Your task to perform on an android device: turn pop-ups on in chrome Image 0: 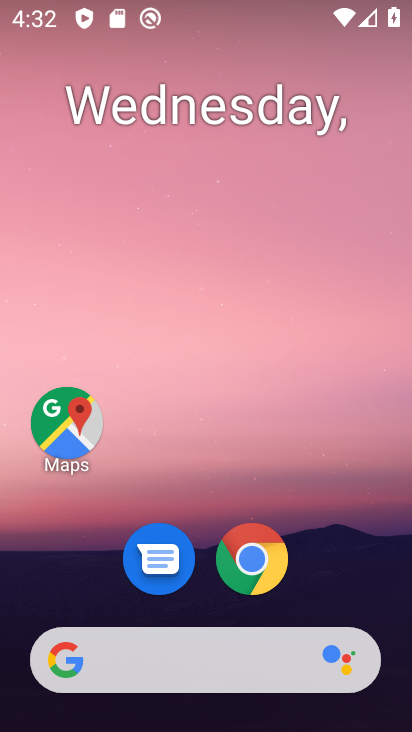
Step 0: click (265, 565)
Your task to perform on an android device: turn pop-ups on in chrome Image 1: 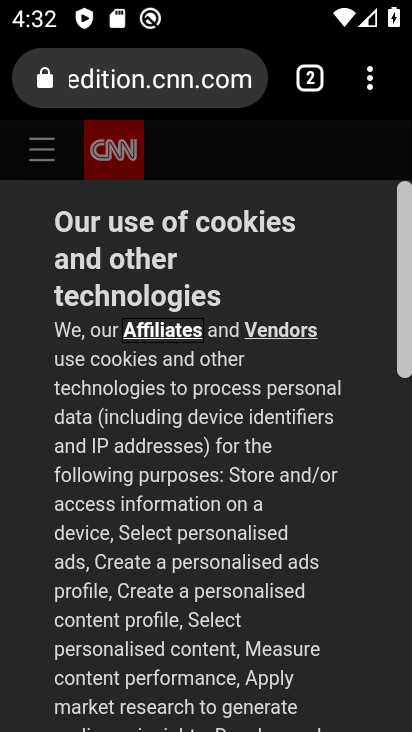
Step 1: click (378, 70)
Your task to perform on an android device: turn pop-ups on in chrome Image 2: 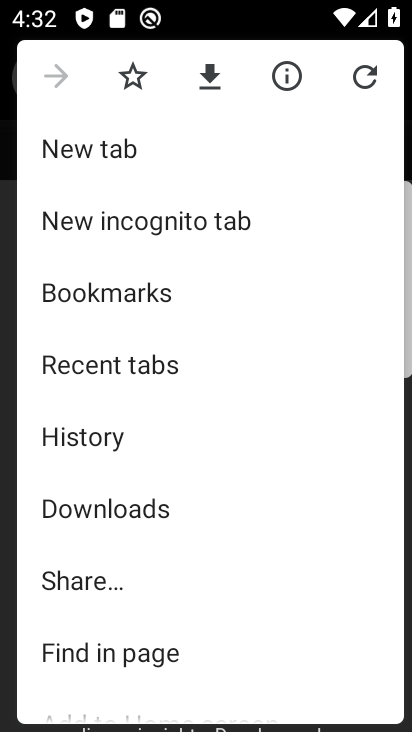
Step 2: drag from (261, 601) to (157, 162)
Your task to perform on an android device: turn pop-ups on in chrome Image 3: 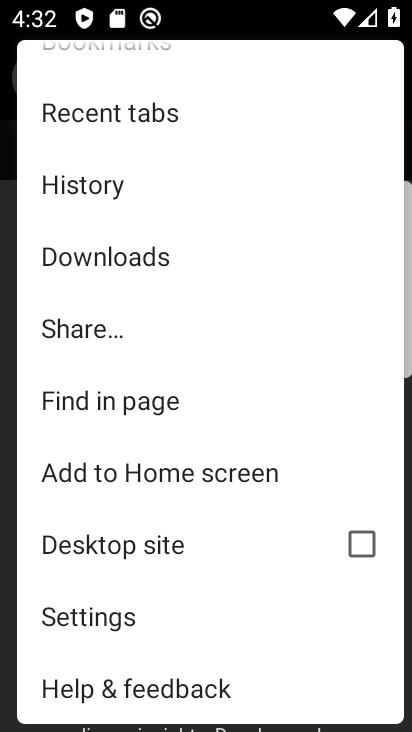
Step 3: click (198, 627)
Your task to perform on an android device: turn pop-ups on in chrome Image 4: 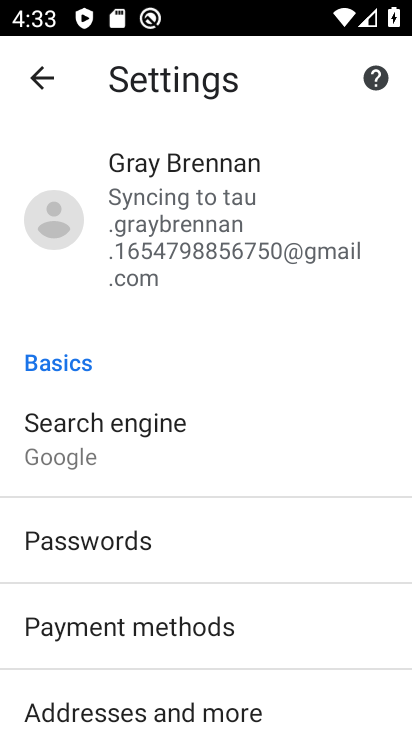
Step 4: drag from (291, 662) to (246, 310)
Your task to perform on an android device: turn pop-ups on in chrome Image 5: 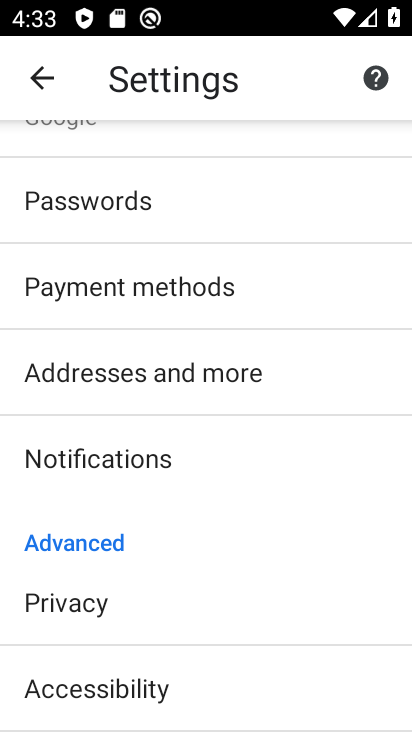
Step 5: drag from (278, 691) to (226, 360)
Your task to perform on an android device: turn pop-ups on in chrome Image 6: 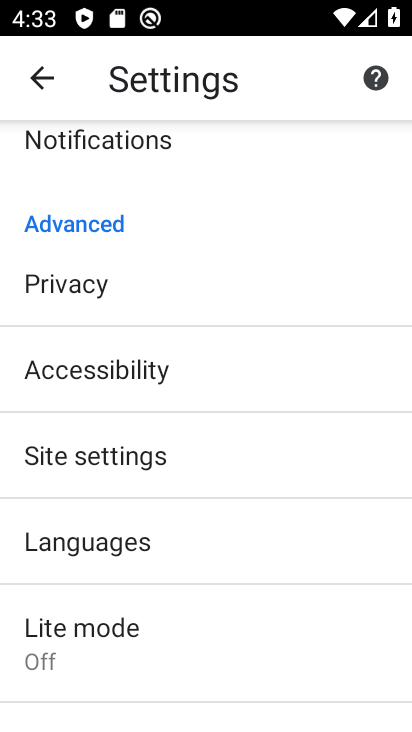
Step 6: click (243, 468)
Your task to perform on an android device: turn pop-ups on in chrome Image 7: 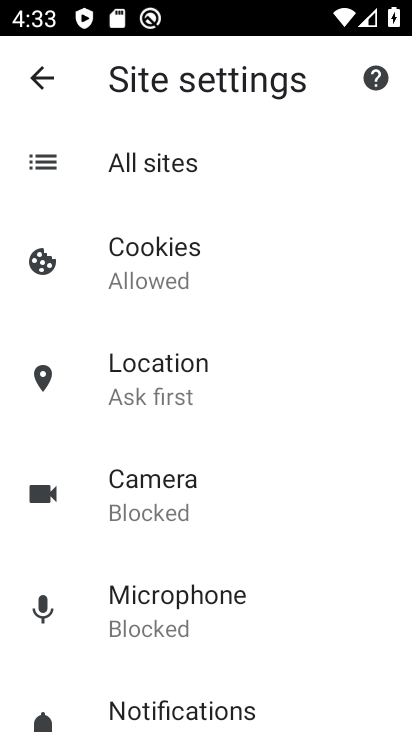
Step 7: drag from (205, 658) to (168, 293)
Your task to perform on an android device: turn pop-ups on in chrome Image 8: 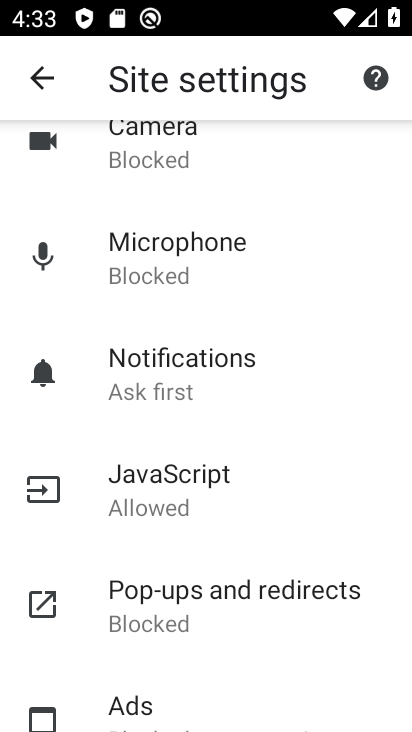
Step 8: click (214, 604)
Your task to perform on an android device: turn pop-ups on in chrome Image 9: 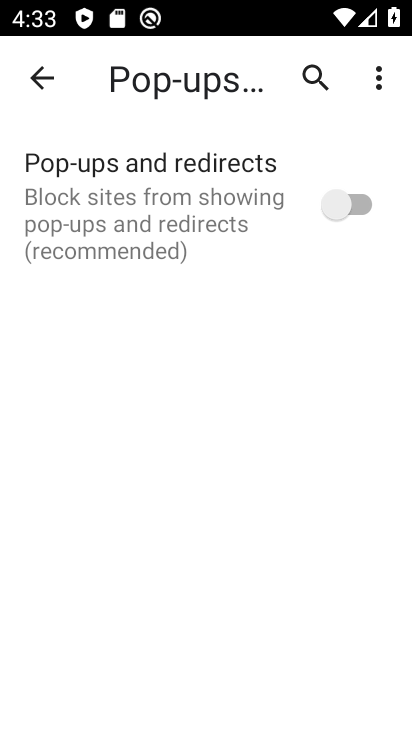
Step 9: click (345, 213)
Your task to perform on an android device: turn pop-ups on in chrome Image 10: 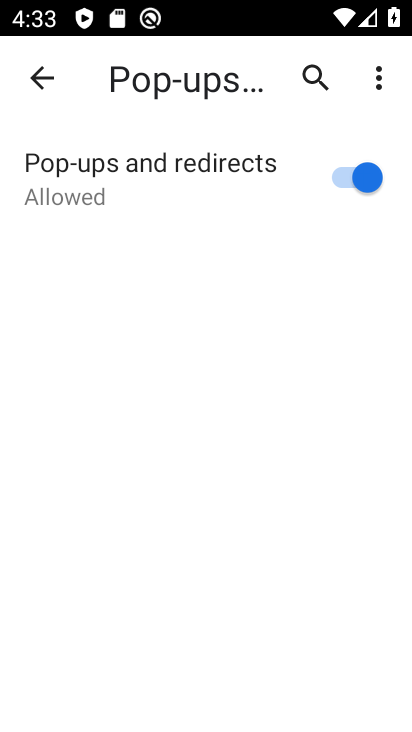
Step 10: task complete